Your task to perform on an android device: Open Youtube and go to "Your channel" Image 0: 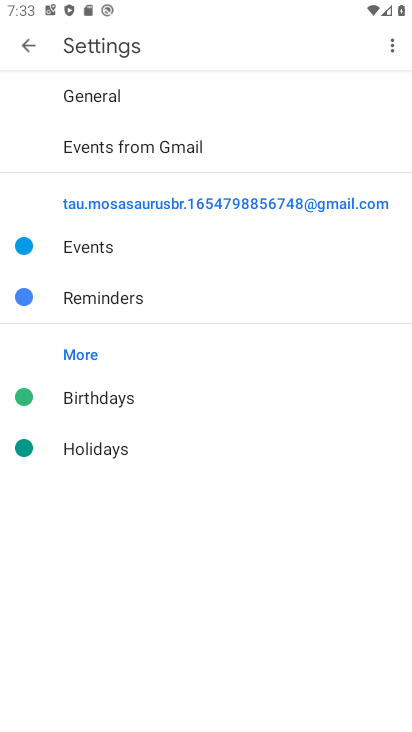
Step 0: press home button
Your task to perform on an android device: Open Youtube and go to "Your channel" Image 1: 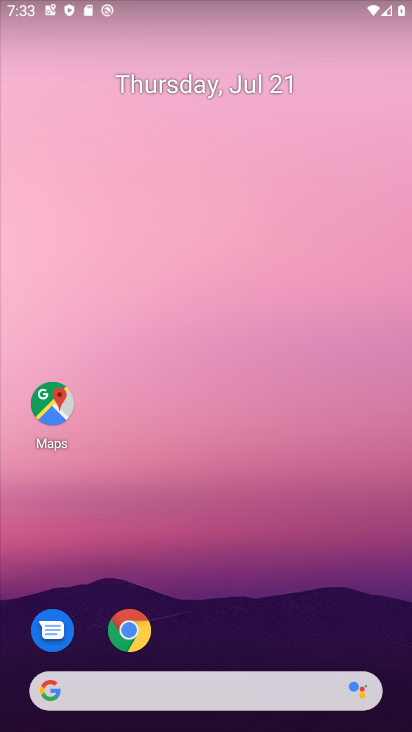
Step 1: drag from (261, 721) to (217, 103)
Your task to perform on an android device: Open Youtube and go to "Your channel" Image 2: 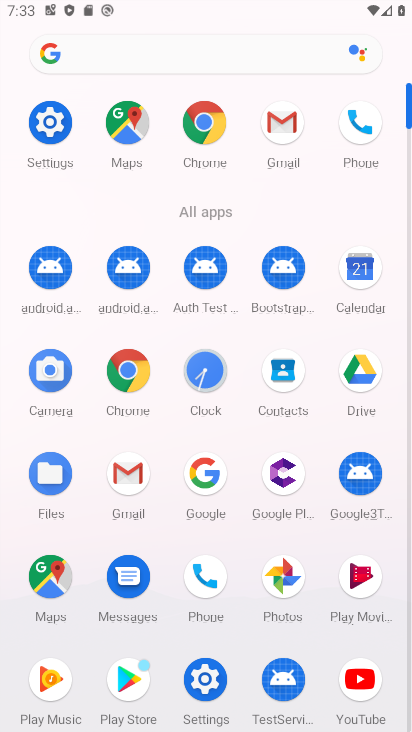
Step 2: click (365, 668)
Your task to perform on an android device: Open Youtube and go to "Your channel" Image 3: 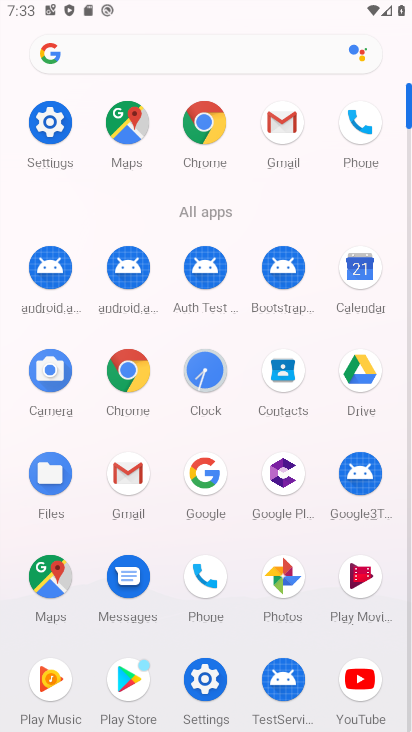
Step 3: click (365, 668)
Your task to perform on an android device: Open Youtube and go to "Your channel" Image 4: 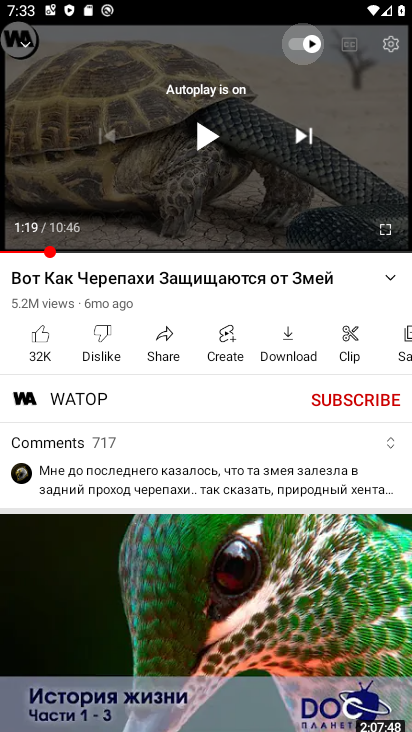
Step 4: drag from (272, 189) to (382, 698)
Your task to perform on an android device: Open Youtube and go to "Your channel" Image 5: 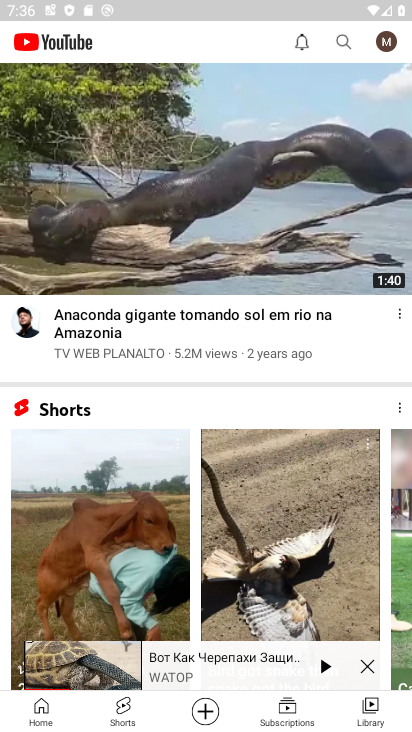
Step 5: drag from (185, 150) to (354, 697)
Your task to perform on an android device: Open Youtube and go to "Your channel" Image 6: 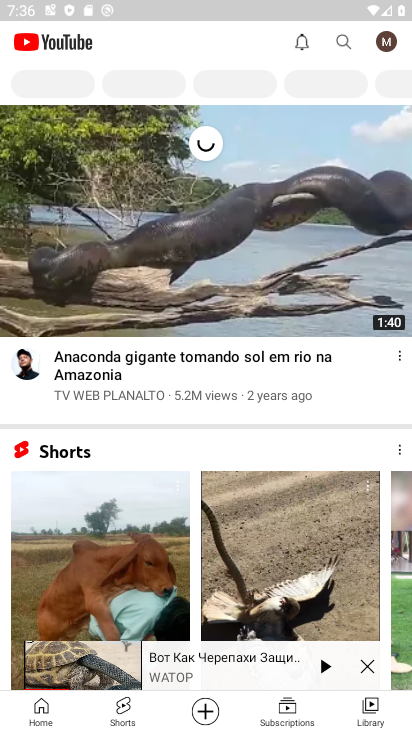
Step 6: click (382, 42)
Your task to perform on an android device: Open Youtube and go to "Your channel" Image 7: 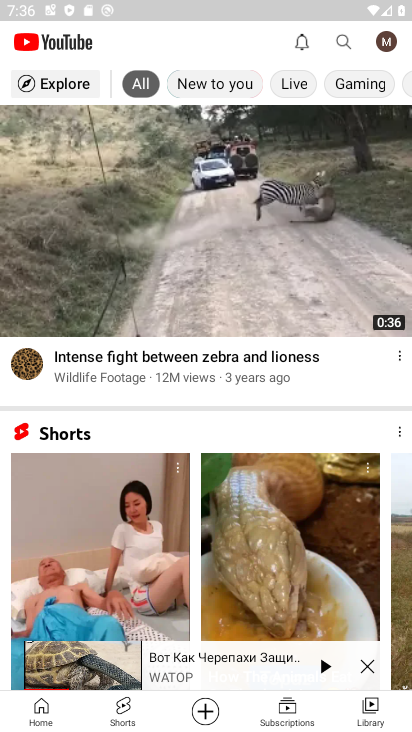
Step 7: click (391, 39)
Your task to perform on an android device: Open Youtube and go to "Your channel" Image 8: 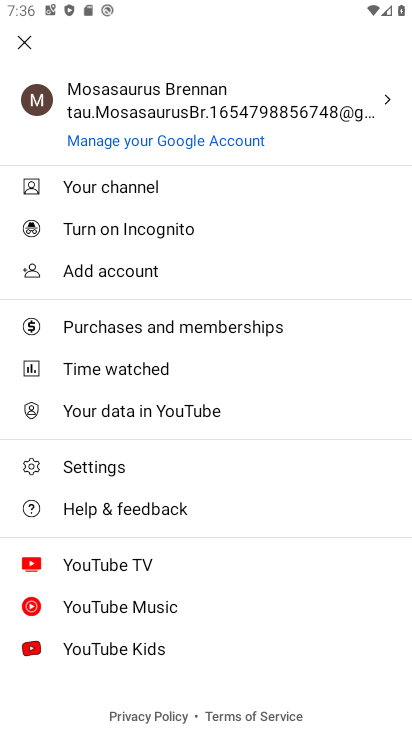
Step 8: click (144, 182)
Your task to perform on an android device: Open Youtube and go to "Your channel" Image 9: 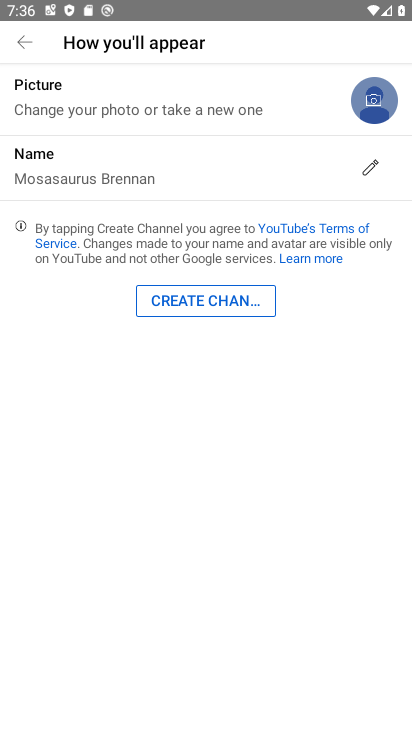
Step 9: task complete